Your task to perform on an android device: Open Chrome and go to settings Image 0: 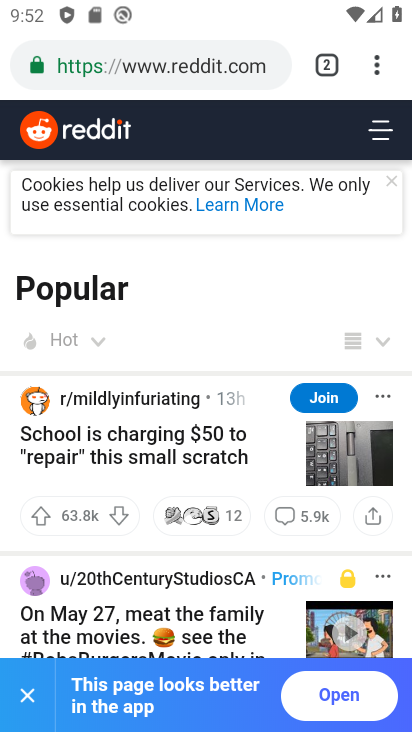
Step 0: drag from (380, 73) to (151, 647)
Your task to perform on an android device: Open Chrome and go to settings Image 1: 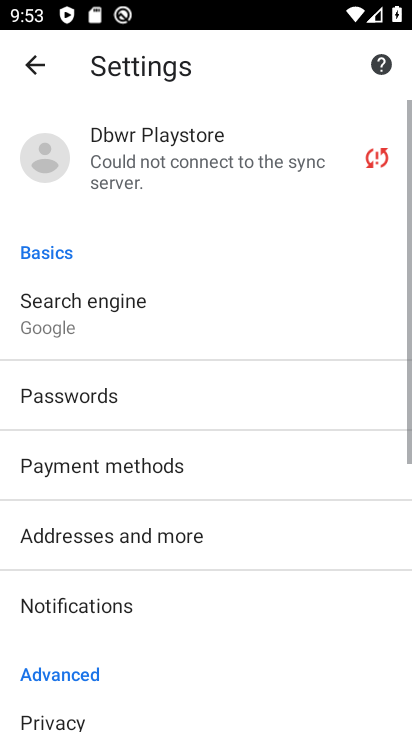
Step 1: task complete